Your task to perform on an android device: Open network settings Image 0: 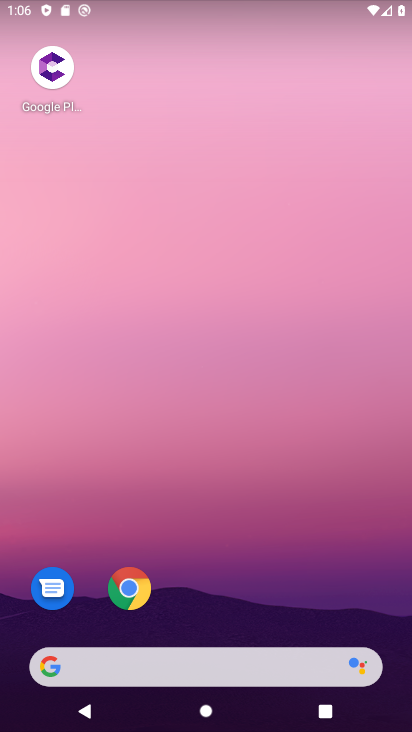
Step 0: drag from (196, 627) to (293, 217)
Your task to perform on an android device: Open network settings Image 1: 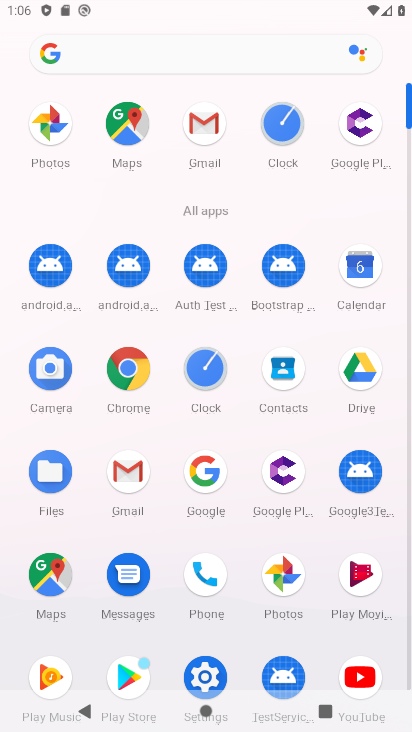
Step 1: click (200, 673)
Your task to perform on an android device: Open network settings Image 2: 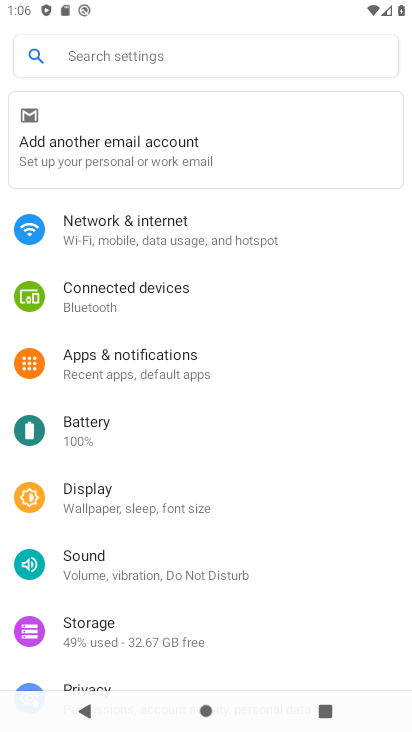
Step 2: click (164, 233)
Your task to perform on an android device: Open network settings Image 3: 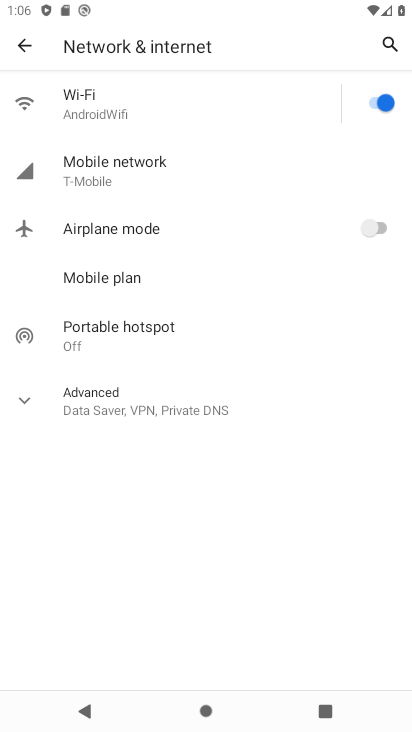
Step 3: click (237, 82)
Your task to perform on an android device: Open network settings Image 4: 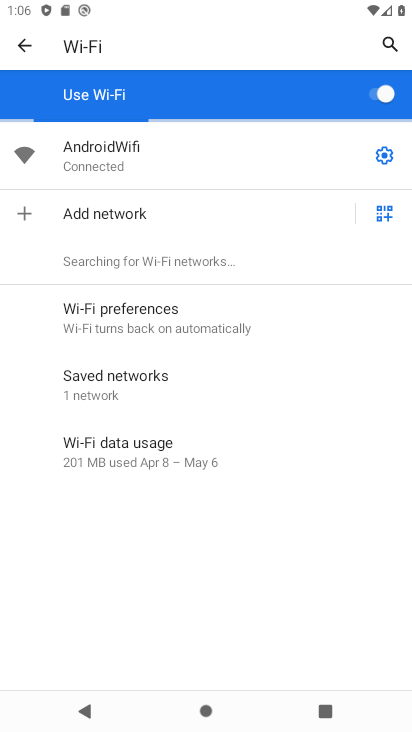
Step 4: click (32, 48)
Your task to perform on an android device: Open network settings Image 5: 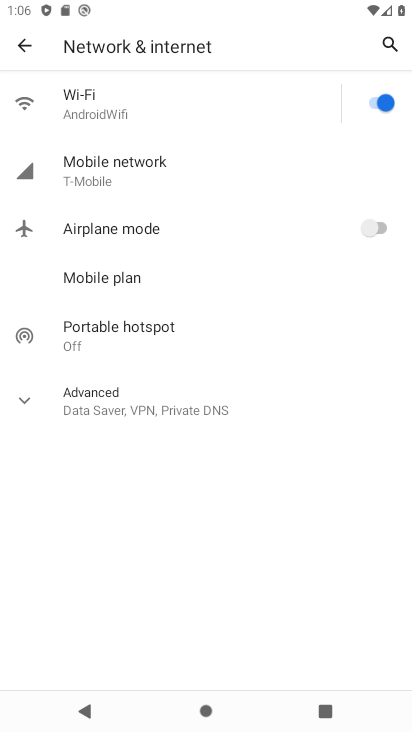
Step 5: click (106, 160)
Your task to perform on an android device: Open network settings Image 6: 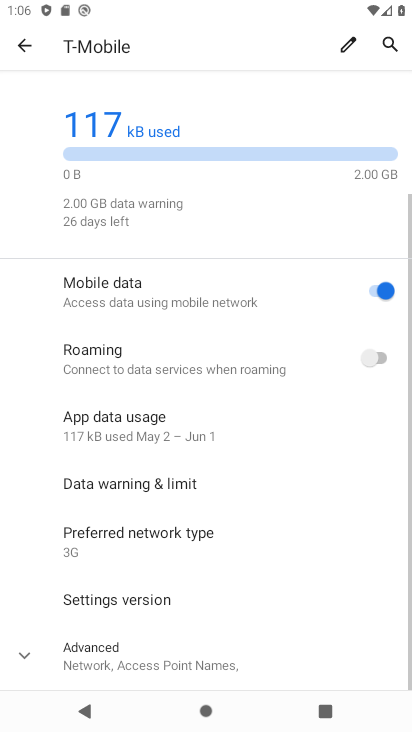
Step 6: task complete